Your task to perform on an android device: turn on wifi Image 0: 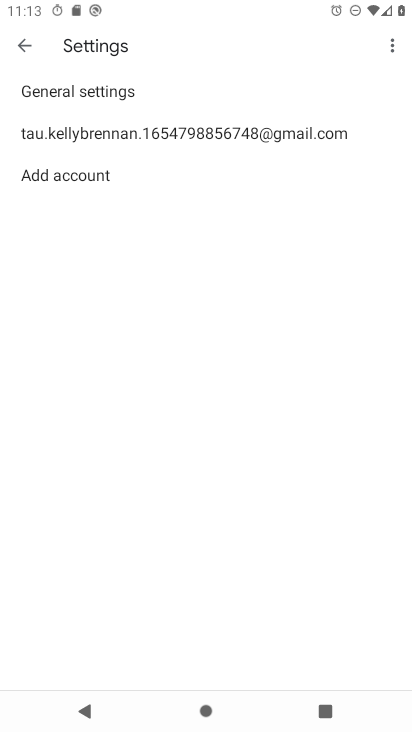
Step 0: press back button
Your task to perform on an android device: turn on wifi Image 1: 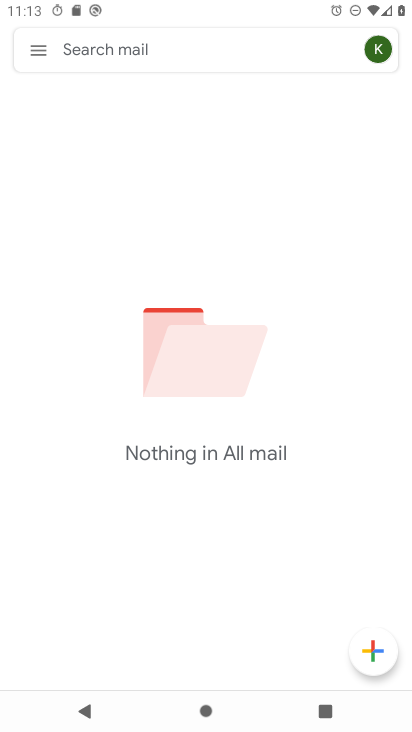
Step 1: task complete